Your task to perform on an android device: Open maps Image 0: 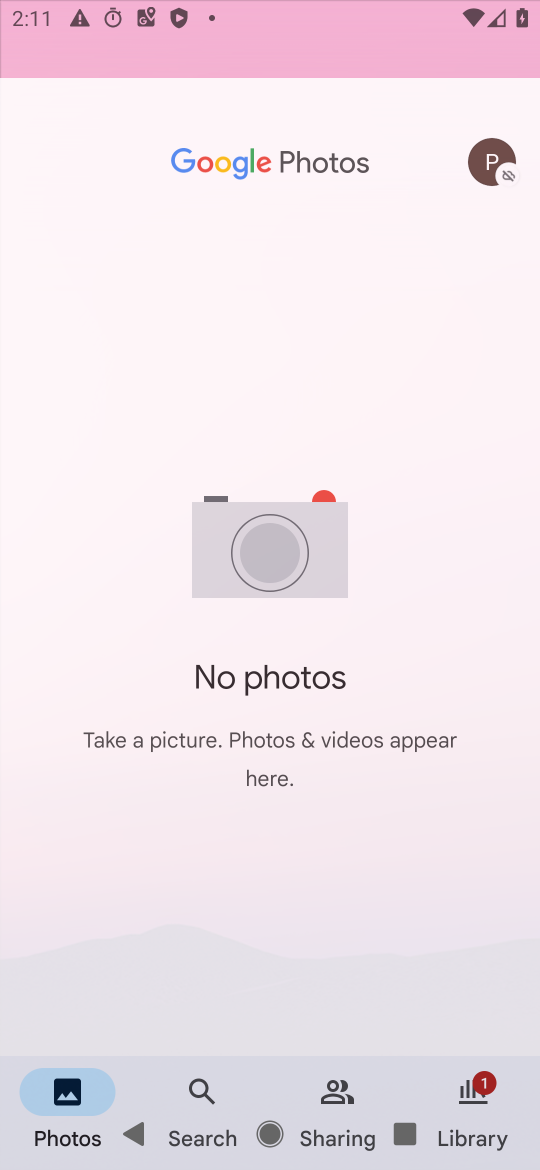
Step 0: press home button
Your task to perform on an android device: Open maps Image 1: 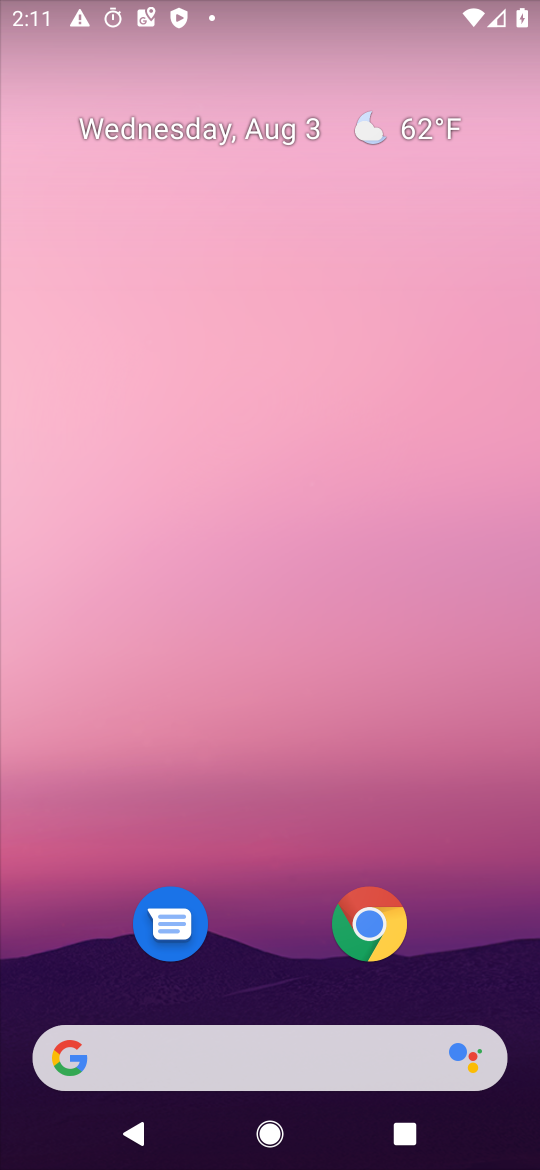
Step 1: drag from (286, 983) to (337, 74)
Your task to perform on an android device: Open maps Image 2: 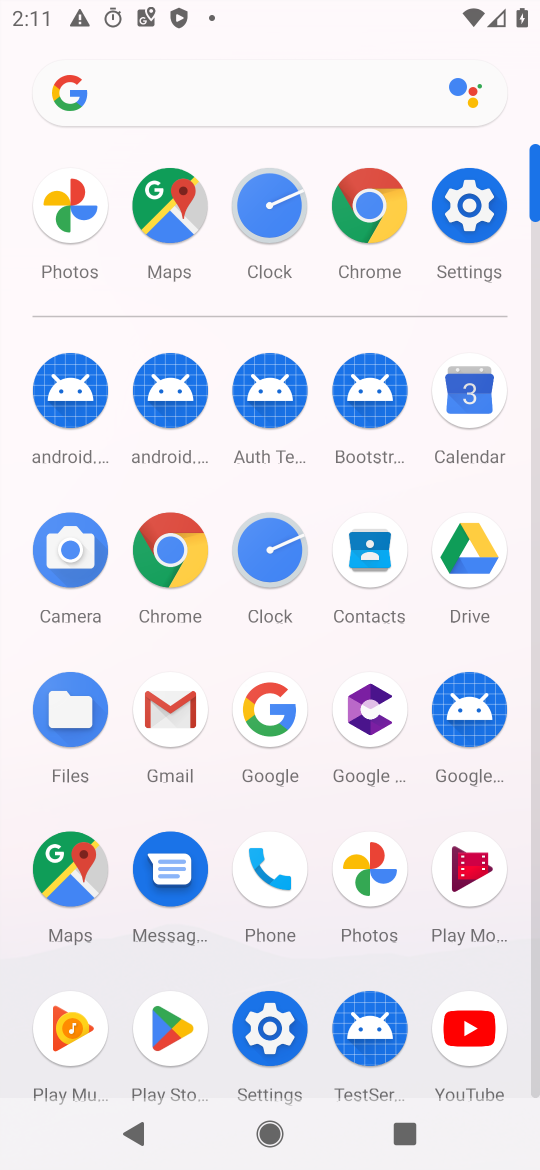
Step 2: click (66, 860)
Your task to perform on an android device: Open maps Image 3: 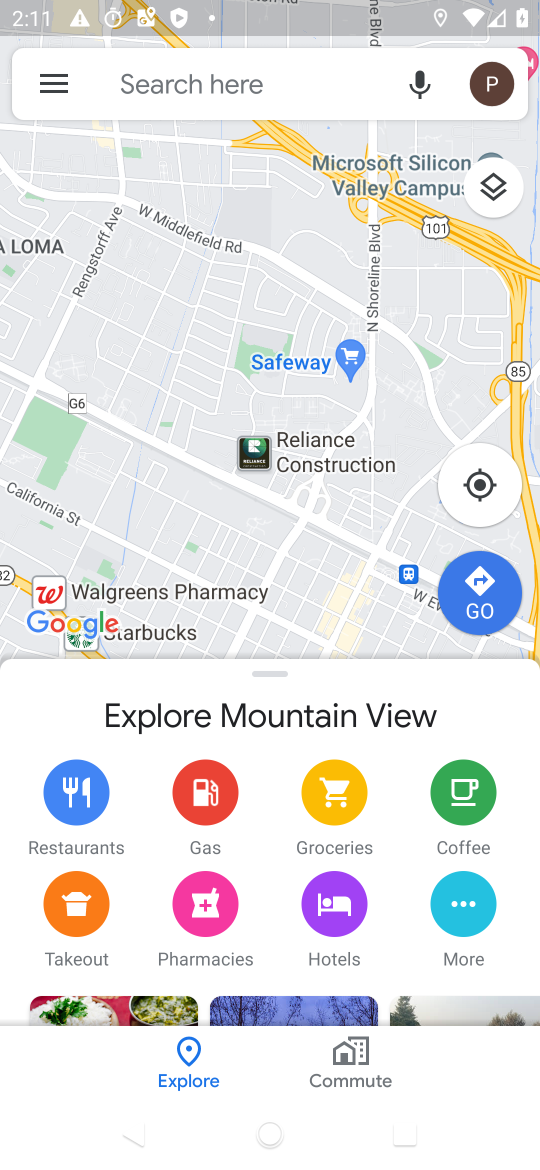
Step 3: task complete